Your task to perform on an android device: Open Wikipedia Image 0: 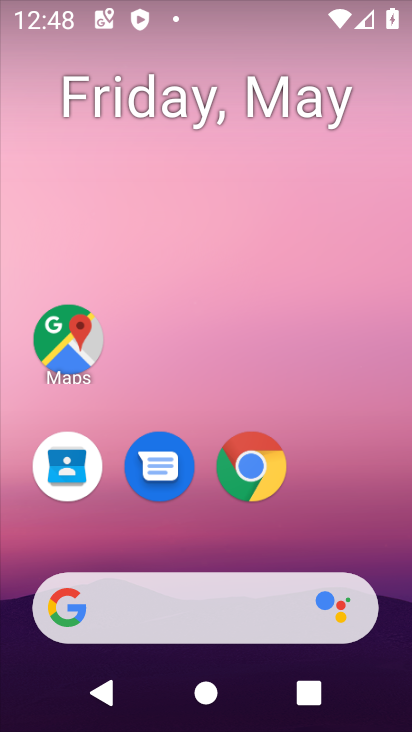
Step 0: drag from (225, 528) to (191, 82)
Your task to perform on an android device: Open Wikipedia Image 1: 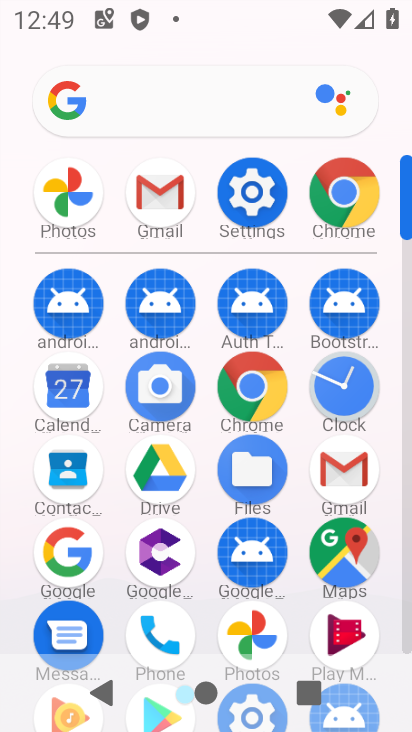
Step 1: click (339, 198)
Your task to perform on an android device: Open Wikipedia Image 2: 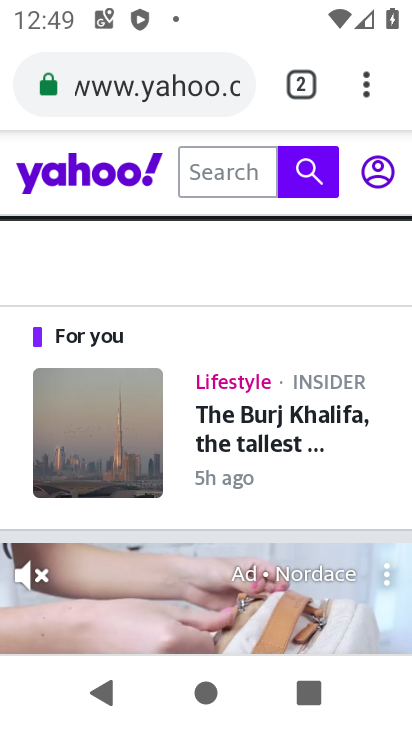
Step 2: click (142, 80)
Your task to perform on an android device: Open Wikipedia Image 3: 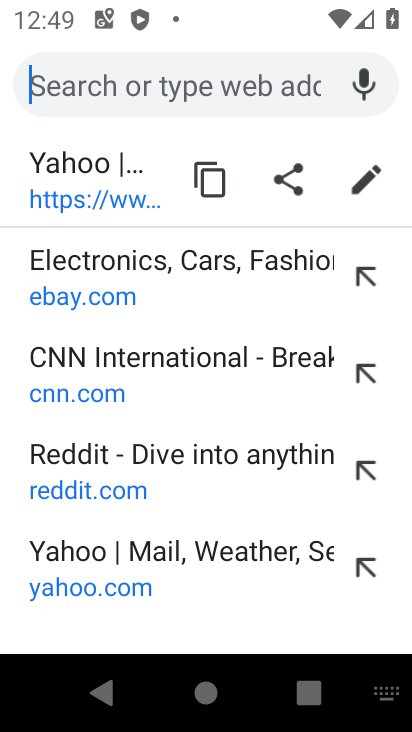
Step 3: type "www.wikipedia.com"
Your task to perform on an android device: Open Wikipedia Image 4: 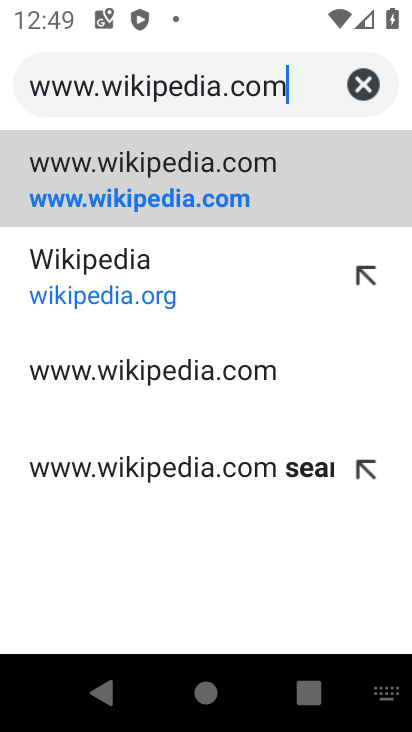
Step 4: click (128, 193)
Your task to perform on an android device: Open Wikipedia Image 5: 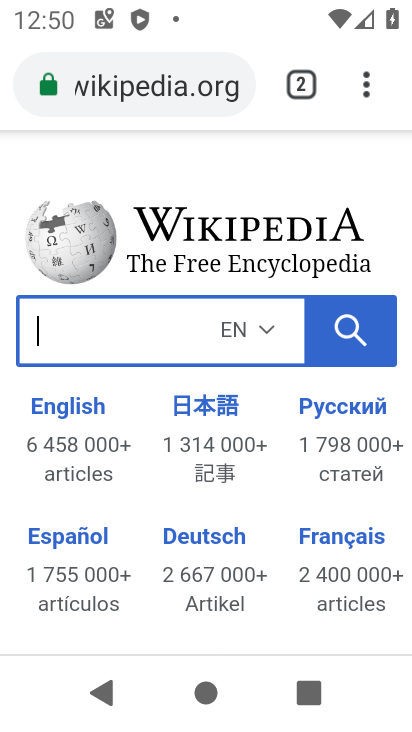
Step 5: task complete